Your task to perform on an android device: change the clock display to analog Image 0: 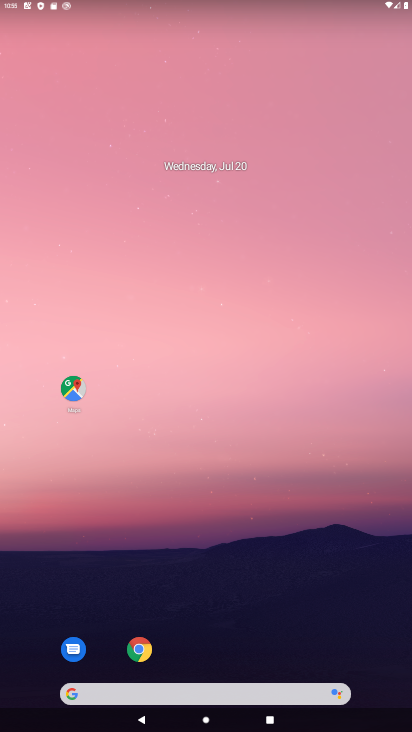
Step 0: drag from (247, 641) to (351, 55)
Your task to perform on an android device: change the clock display to analog Image 1: 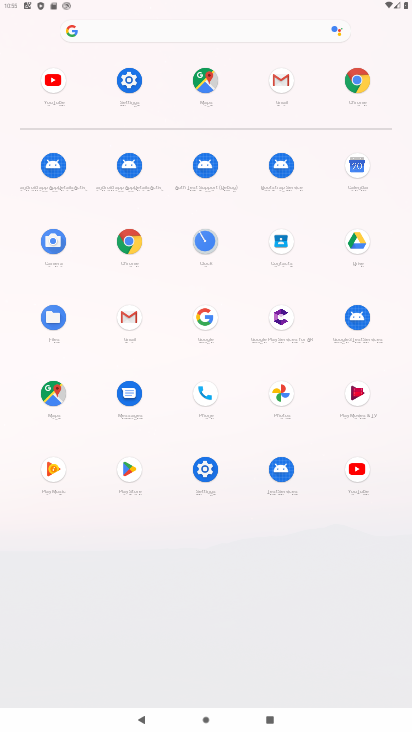
Step 1: task complete